Your task to perform on an android device: move a message to another label in the gmail app Image 0: 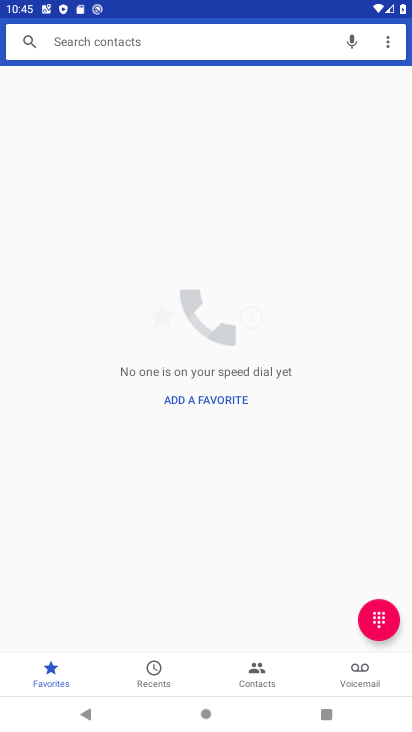
Step 0: press home button
Your task to perform on an android device: move a message to another label in the gmail app Image 1: 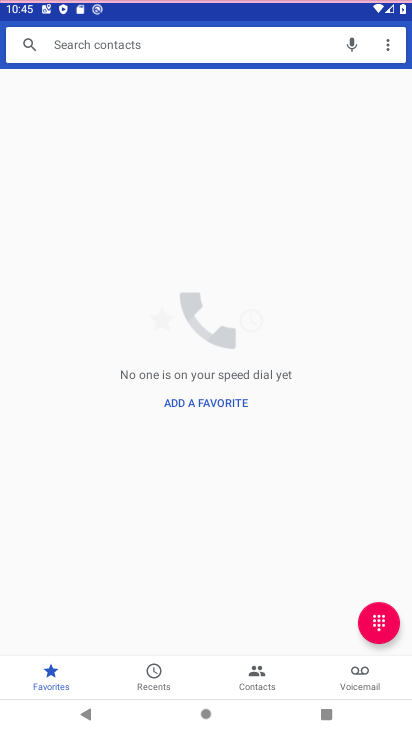
Step 1: drag from (377, 633) to (292, 26)
Your task to perform on an android device: move a message to another label in the gmail app Image 2: 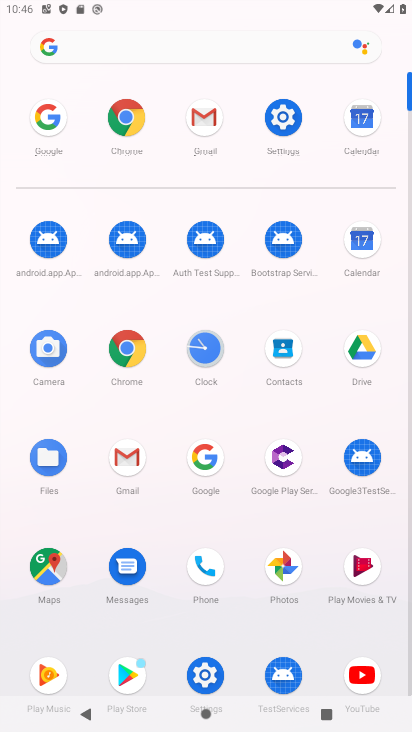
Step 2: click (139, 439)
Your task to perform on an android device: move a message to another label in the gmail app Image 3: 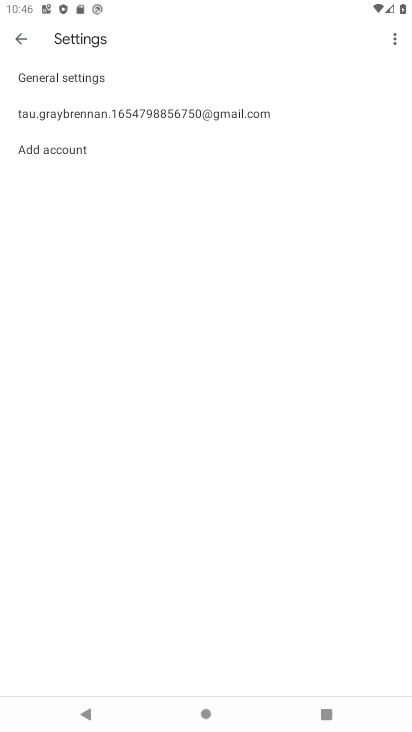
Step 3: task complete